Your task to perform on an android device: toggle airplane mode Image 0: 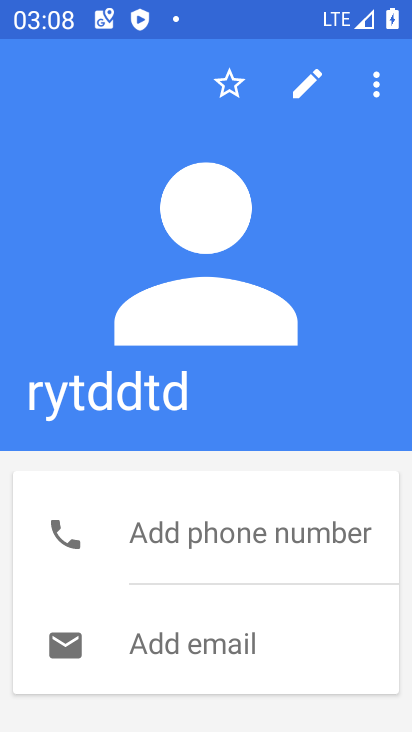
Step 0: press home button
Your task to perform on an android device: toggle airplane mode Image 1: 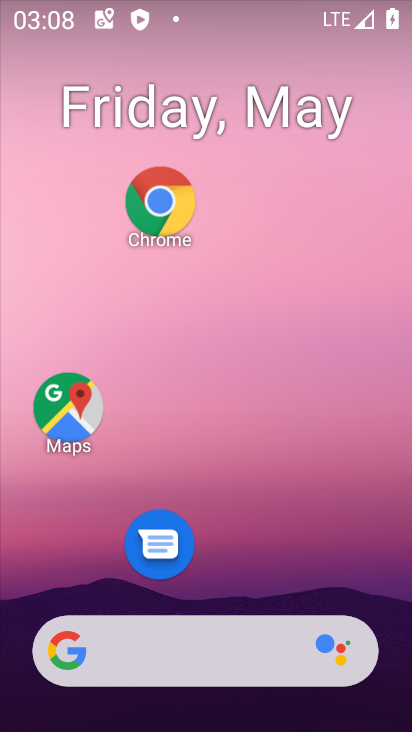
Step 1: drag from (272, 546) to (285, 258)
Your task to perform on an android device: toggle airplane mode Image 2: 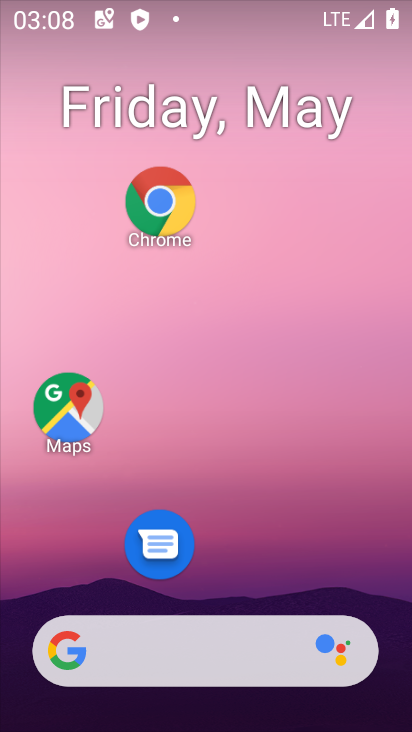
Step 2: drag from (287, 520) to (285, 88)
Your task to perform on an android device: toggle airplane mode Image 3: 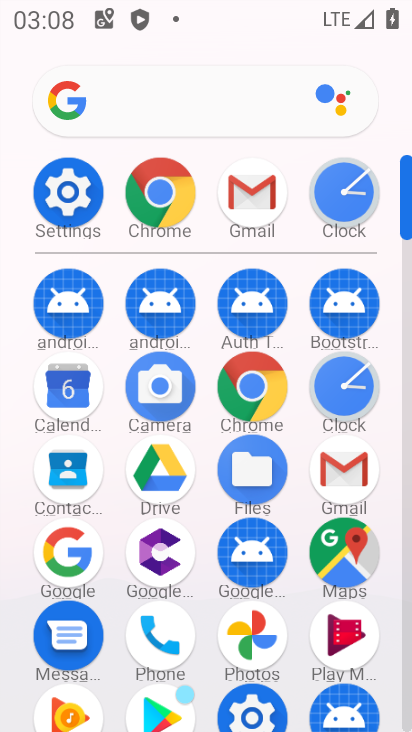
Step 3: click (86, 200)
Your task to perform on an android device: toggle airplane mode Image 4: 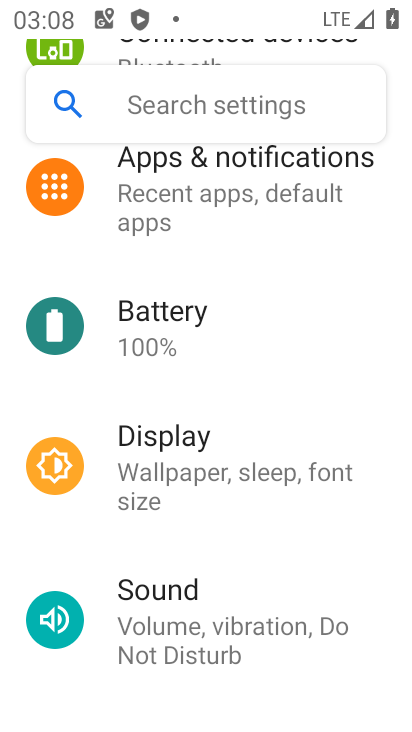
Step 4: drag from (238, 270) to (225, 580)
Your task to perform on an android device: toggle airplane mode Image 5: 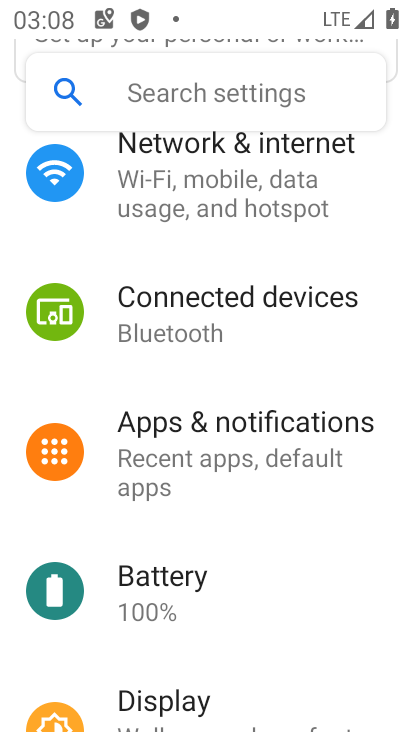
Step 5: drag from (247, 279) to (259, 535)
Your task to perform on an android device: toggle airplane mode Image 6: 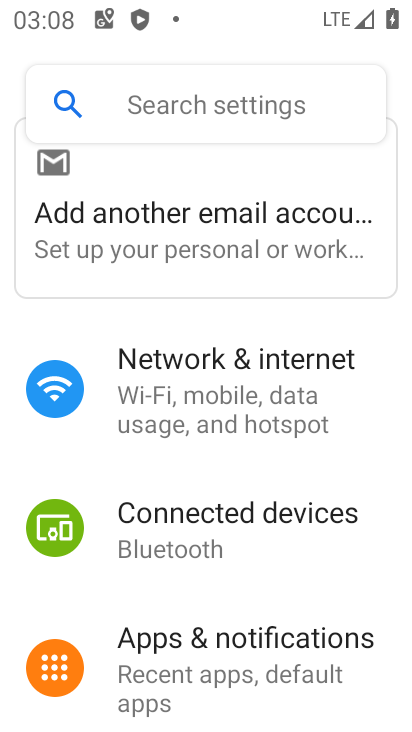
Step 6: drag from (221, 497) to (216, 319)
Your task to perform on an android device: toggle airplane mode Image 7: 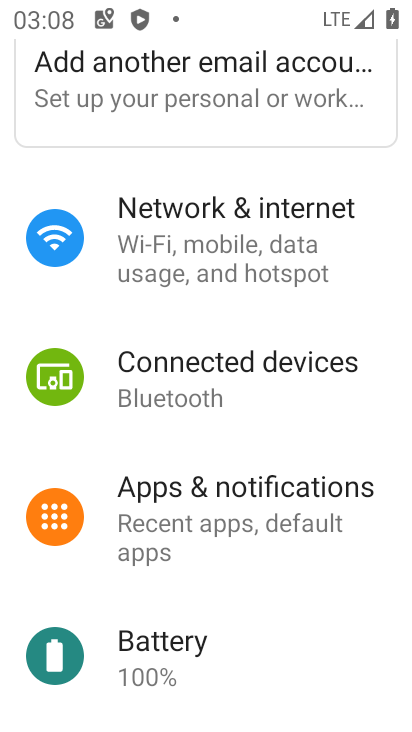
Step 7: click (244, 261)
Your task to perform on an android device: toggle airplane mode Image 8: 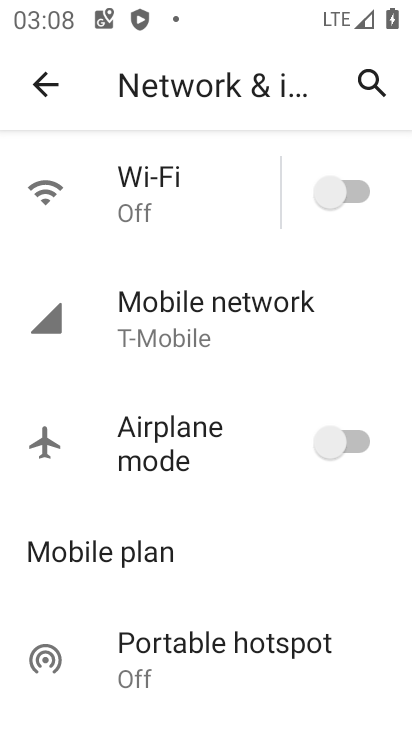
Step 8: click (324, 454)
Your task to perform on an android device: toggle airplane mode Image 9: 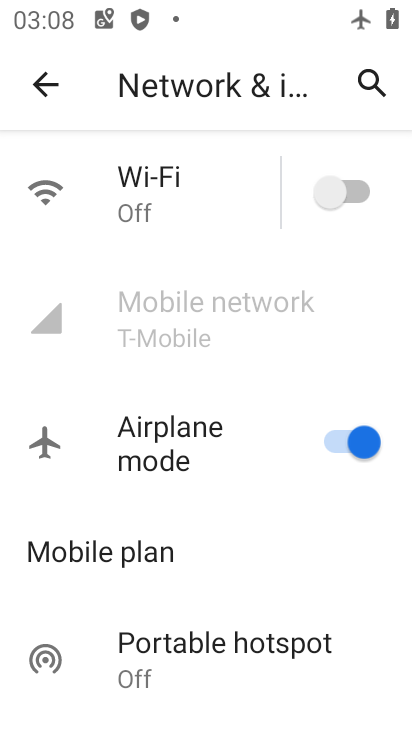
Step 9: task complete